Your task to perform on an android device: delete browsing data in the chrome app Image 0: 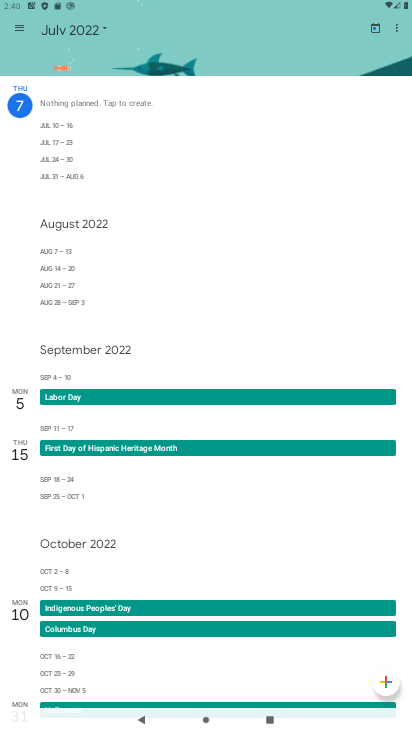
Step 0: press back button
Your task to perform on an android device: delete browsing data in the chrome app Image 1: 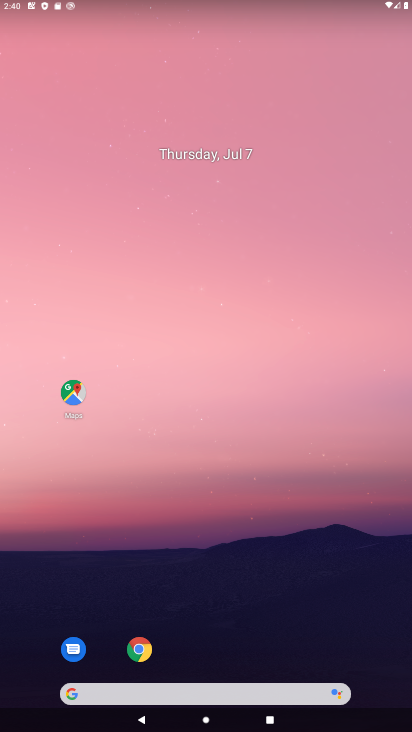
Step 1: click (151, 643)
Your task to perform on an android device: delete browsing data in the chrome app Image 2: 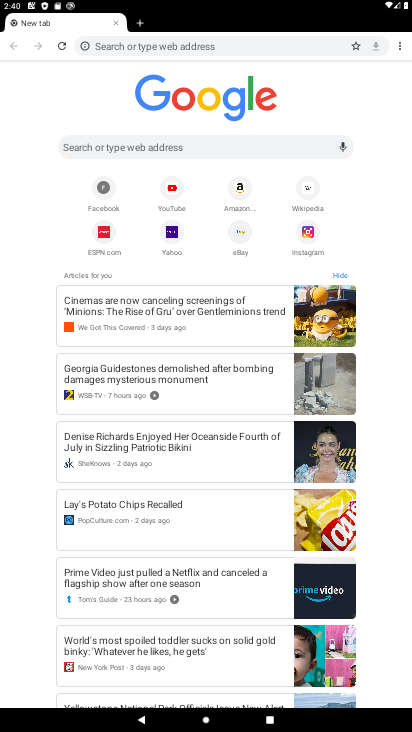
Step 2: drag from (398, 45) to (311, 210)
Your task to perform on an android device: delete browsing data in the chrome app Image 3: 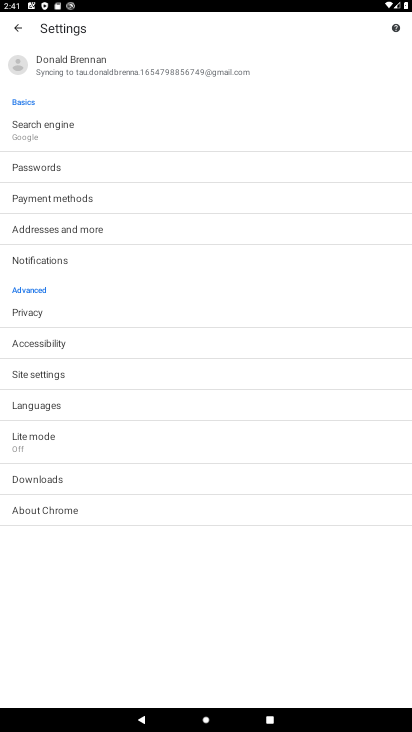
Step 3: click (25, 24)
Your task to perform on an android device: delete browsing data in the chrome app Image 4: 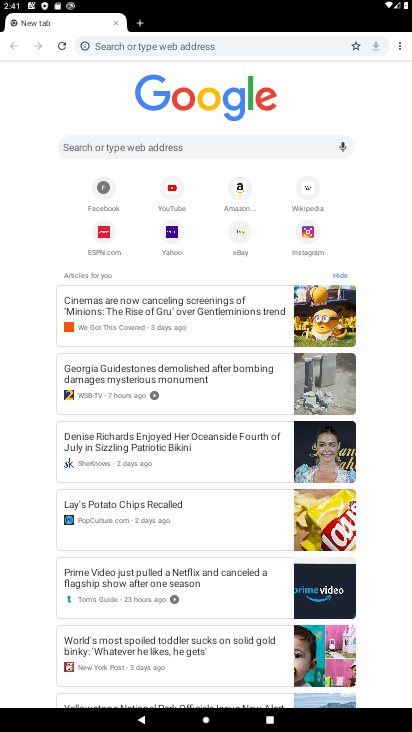
Step 4: drag from (402, 43) to (303, 137)
Your task to perform on an android device: delete browsing data in the chrome app Image 5: 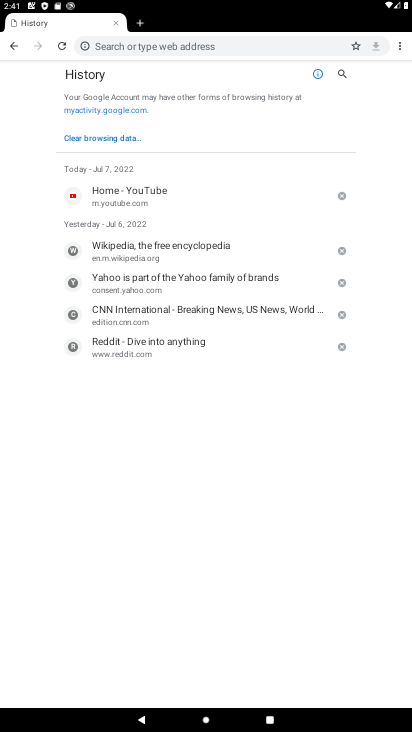
Step 5: click (115, 141)
Your task to perform on an android device: delete browsing data in the chrome app Image 6: 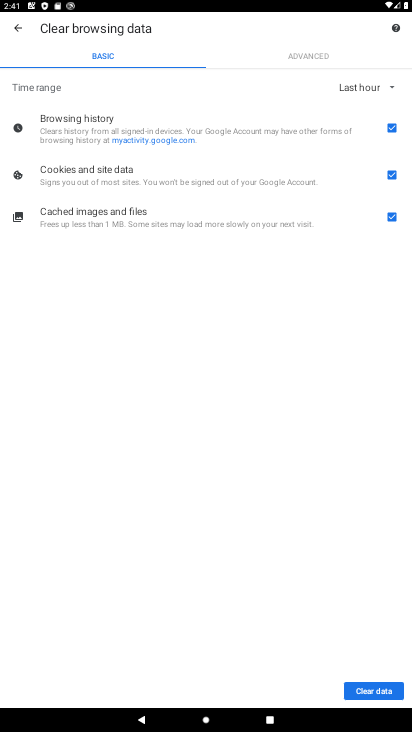
Step 6: click (369, 690)
Your task to perform on an android device: delete browsing data in the chrome app Image 7: 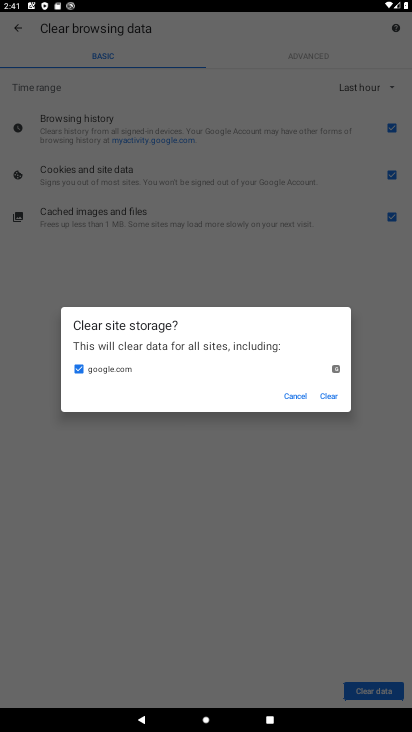
Step 7: click (327, 397)
Your task to perform on an android device: delete browsing data in the chrome app Image 8: 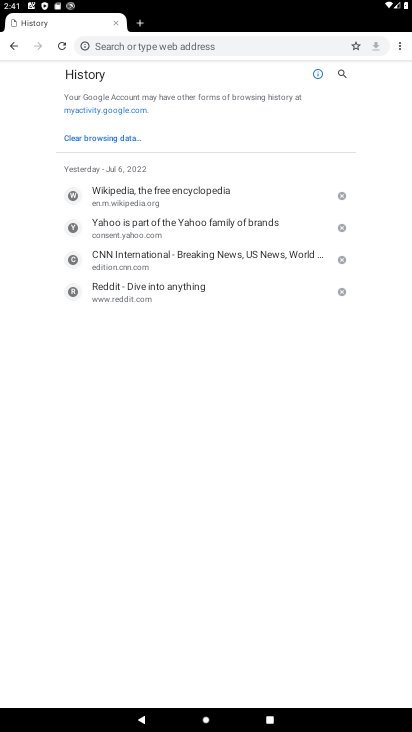
Step 8: task complete